Your task to perform on an android device: Search for the best vacuum on Amazon. Image 0: 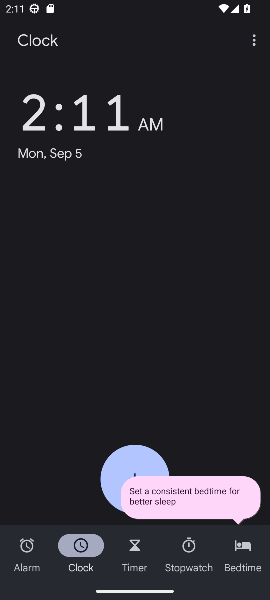
Step 0: press home button
Your task to perform on an android device: Search for the best vacuum on Amazon. Image 1: 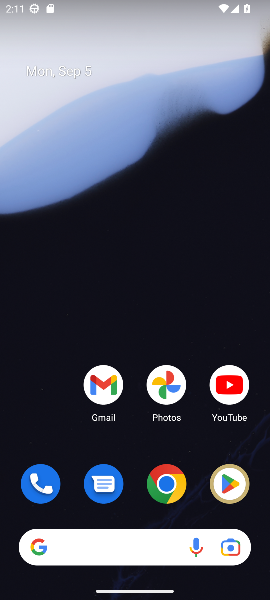
Step 1: click (166, 487)
Your task to perform on an android device: Search for the best vacuum on Amazon. Image 2: 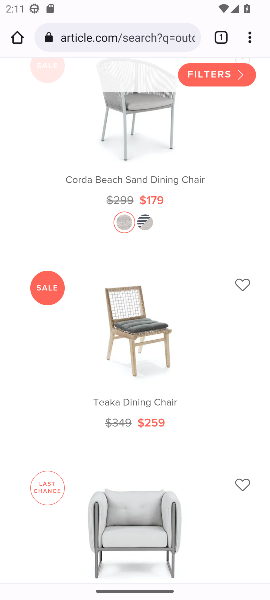
Step 2: click (138, 38)
Your task to perform on an android device: Search for the best vacuum on Amazon. Image 3: 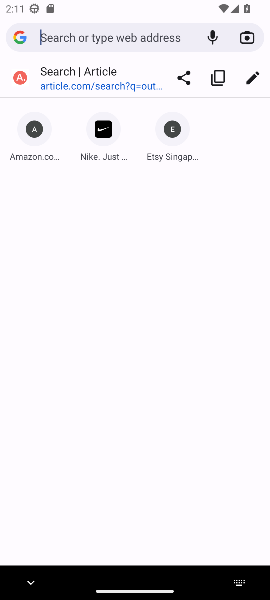
Step 3: click (136, 34)
Your task to perform on an android device: Search for the best vacuum on Amazon. Image 4: 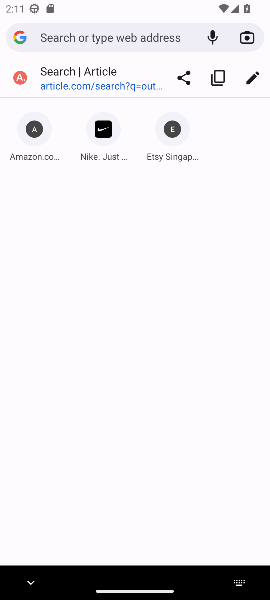
Step 4: type "Amazon"
Your task to perform on an android device: Search for the best vacuum on Amazon. Image 5: 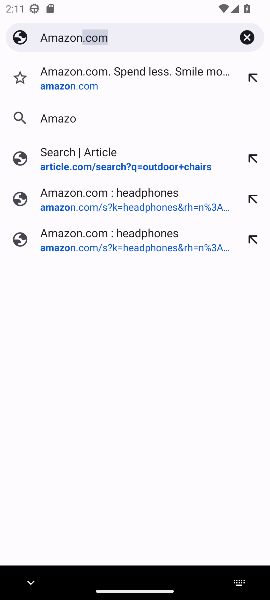
Step 5: press enter
Your task to perform on an android device: Search for the best vacuum on Amazon. Image 6: 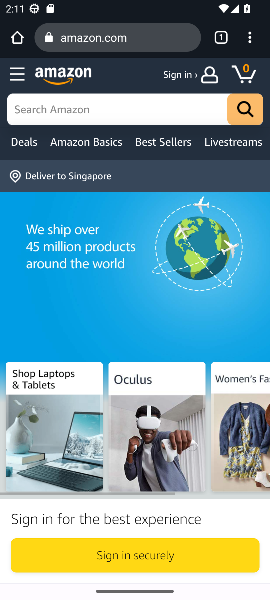
Step 6: click (129, 111)
Your task to perform on an android device: Search for the best vacuum on Amazon. Image 7: 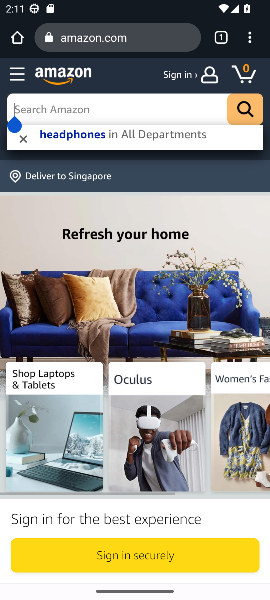
Step 7: type " vacuum "
Your task to perform on an android device: Search for the best vacuum on Amazon. Image 8: 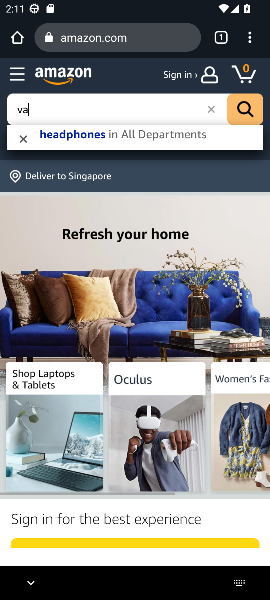
Step 8: press enter
Your task to perform on an android device: Search for the best vacuum on Amazon. Image 9: 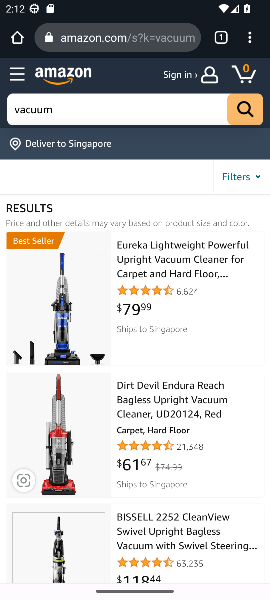
Step 9: drag from (170, 364) to (214, 210)
Your task to perform on an android device: Search for the best vacuum on Amazon. Image 10: 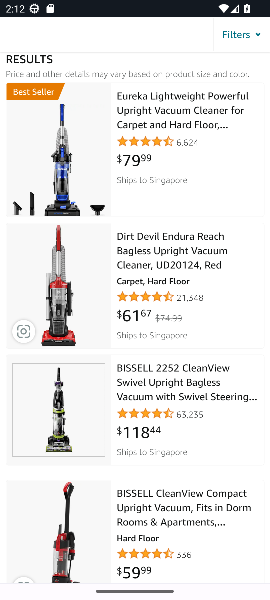
Step 10: drag from (145, 527) to (263, 177)
Your task to perform on an android device: Search for the best vacuum on Amazon. Image 11: 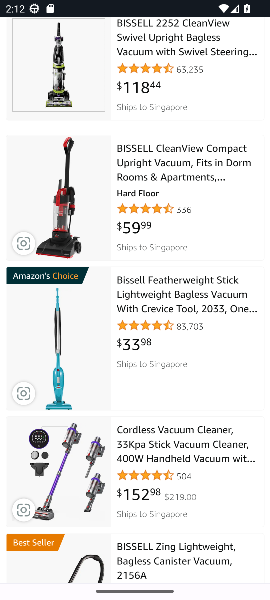
Step 11: drag from (154, 457) to (228, 164)
Your task to perform on an android device: Search for the best vacuum on Amazon. Image 12: 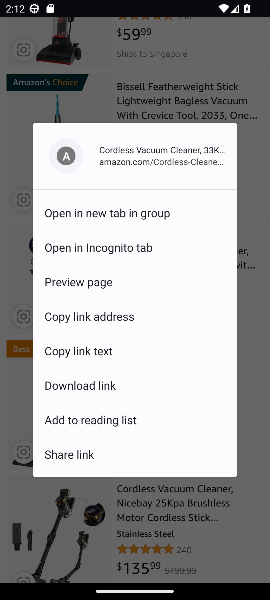
Step 12: click (249, 360)
Your task to perform on an android device: Search for the best vacuum on Amazon. Image 13: 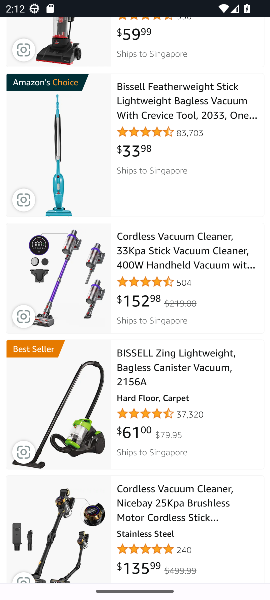
Step 13: task complete